Your task to perform on an android device: Go to CNN.com Image 0: 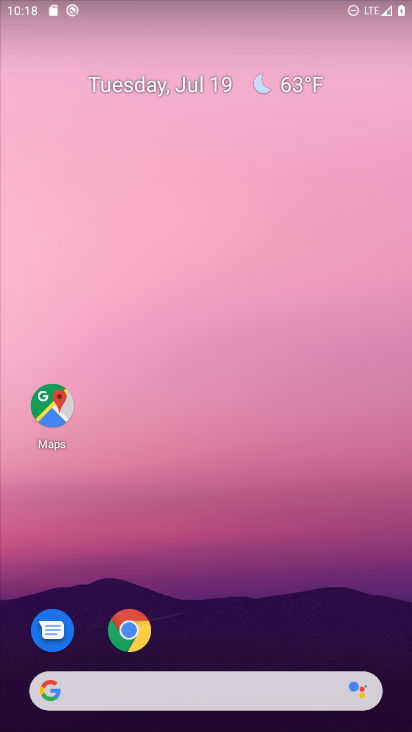
Step 0: click (132, 633)
Your task to perform on an android device: Go to CNN.com Image 1: 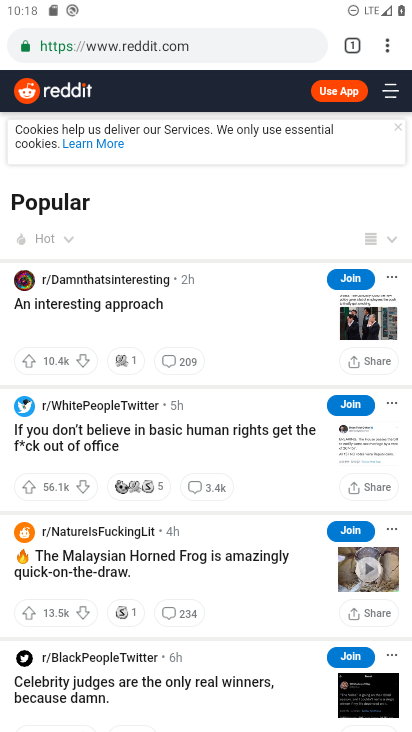
Step 1: click (264, 40)
Your task to perform on an android device: Go to CNN.com Image 2: 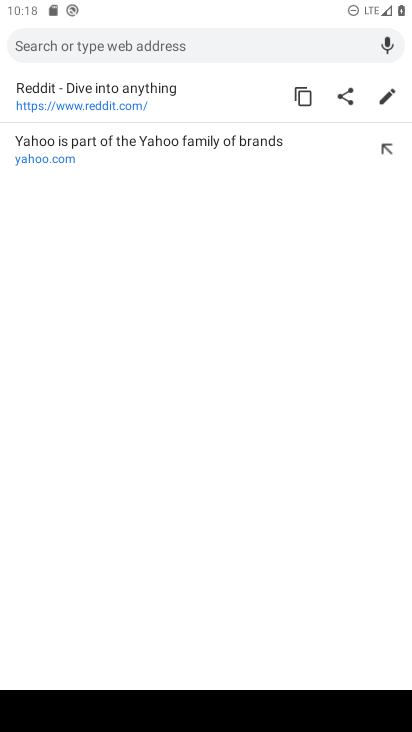
Step 2: type "CNN.com"
Your task to perform on an android device: Go to CNN.com Image 3: 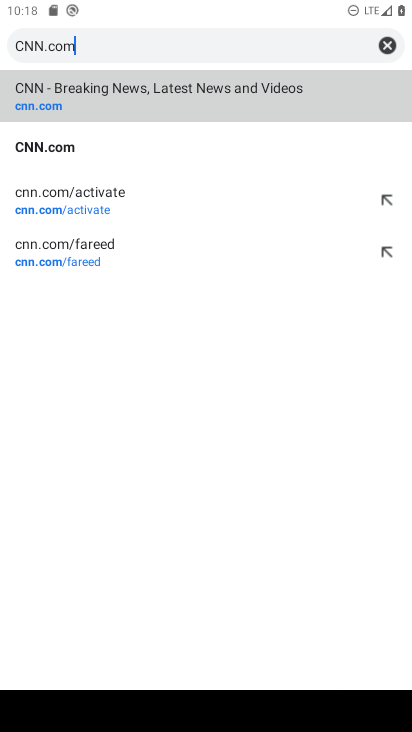
Step 3: click (65, 145)
Your task to perform on an android device: Go to CNN.com Image 4: 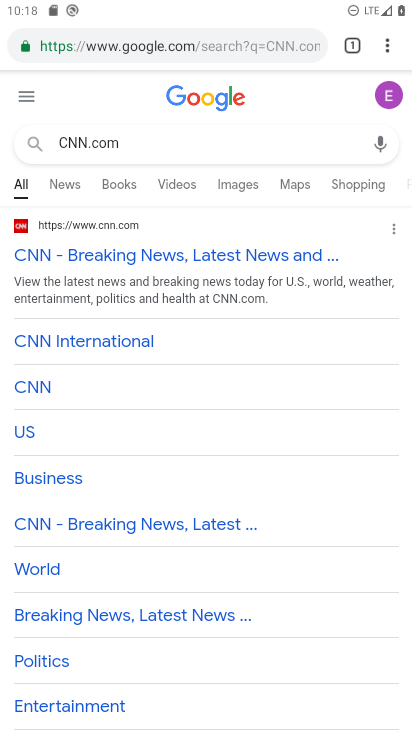
Step 4: click (53, 251)
Your task to perform on an android device: Go to CNN.com Image 5: 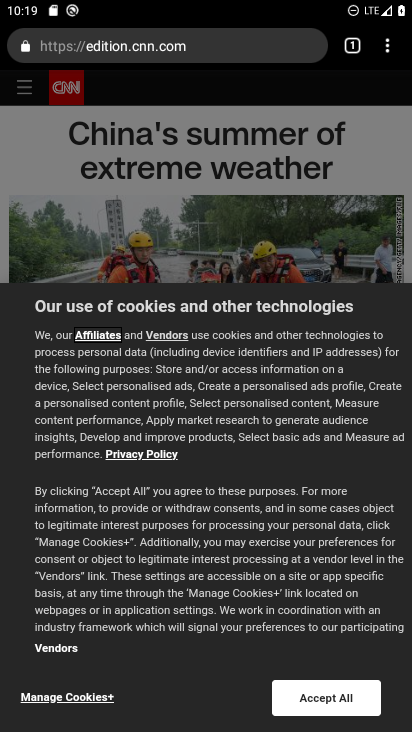
Step 5: click (327, 699)
Your task to perform on an android device: Go to CNN.com Image 6: 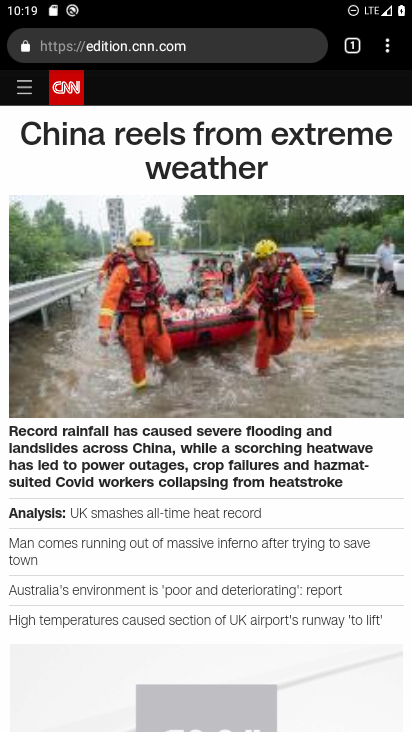
Step 6: task complete